Your task to perform on an android device: change timer sound Image 0: 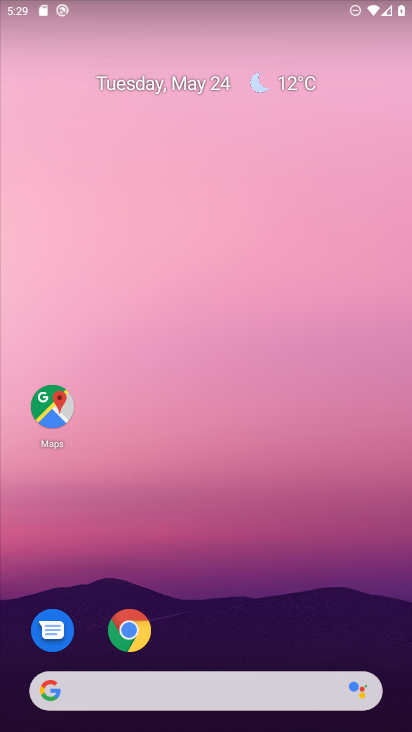
Step 0: drag from (194, 644) to (189, 22)
Your task to perform on an android device: change timer sound Image 1: 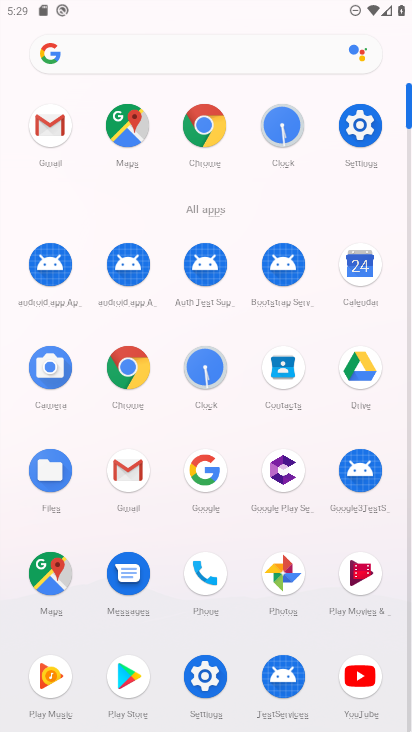
Step 1: click (237, 610)
Your task to perform on an android device: change timer sound Image 2: 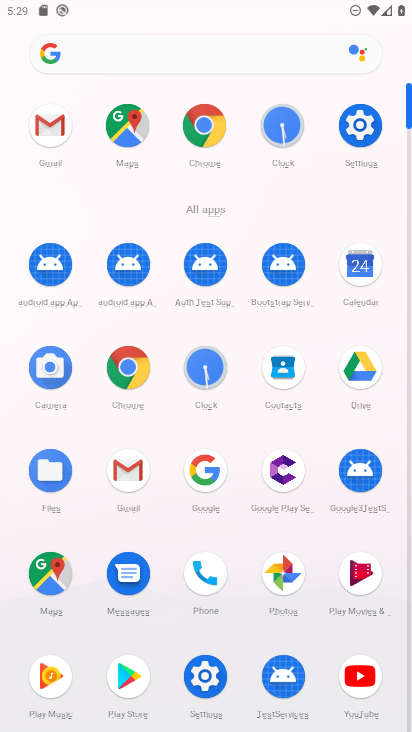
Step 2: click (206, 374)
Your task to perform on an android device: change timer sound Image 3: 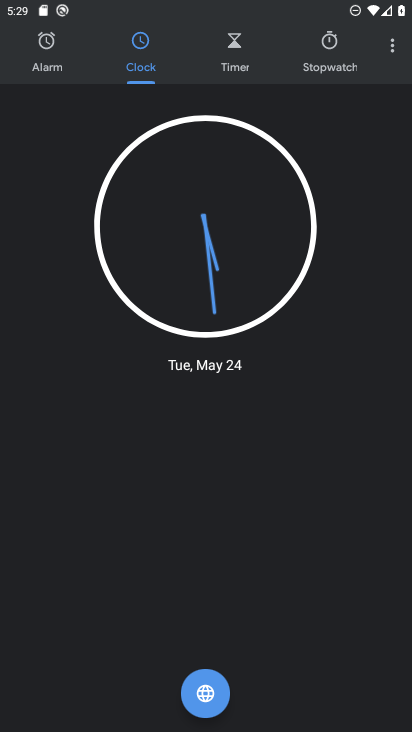
Step 3: click (392, 52)
Your task to perform on an android device: change timer sound Image 4: 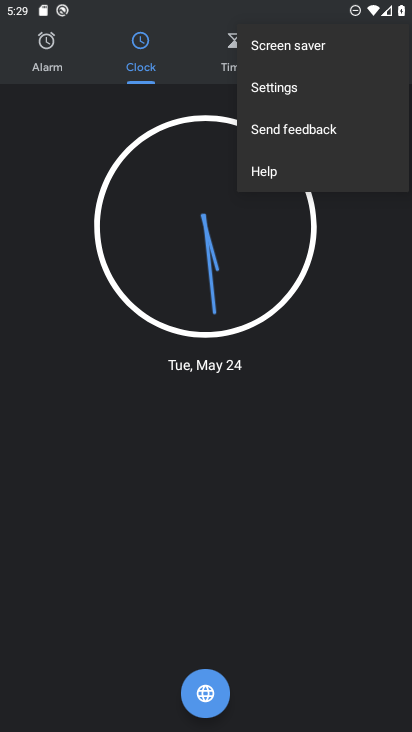
Step 4: click (299, 74)
Your task to perform on an android device: change timer sound Image 5: 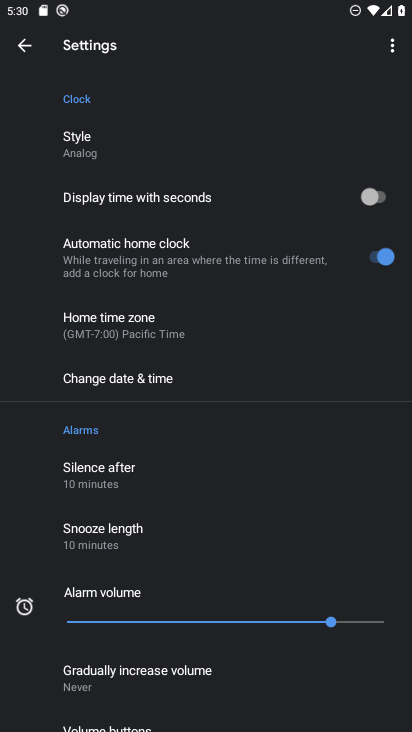
Step 5: drag from (215, 548) to (138, 222)
Your task to perform on an android device: change timer sound Image 6: 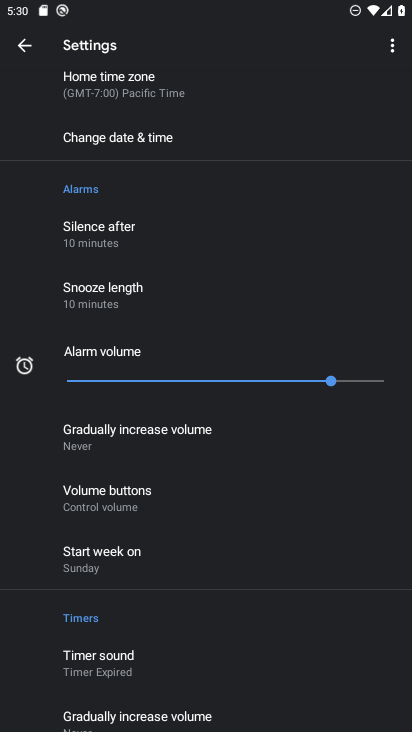
Step 6: click (136, 678)
Your task to perform on an android device: change timer sound Image 7: 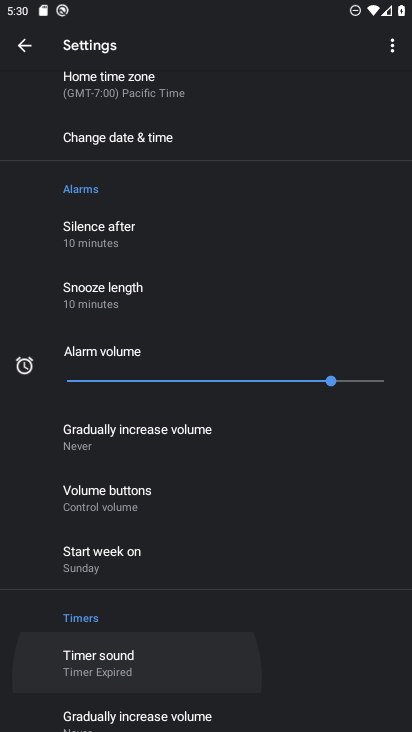
Step 7: click (136, 678)
Your task to perform on an android device: change timer sound Image 8: 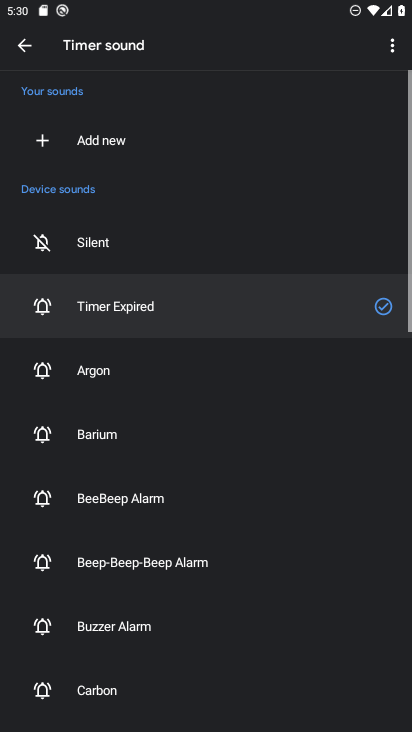
Step 8: click (94, 512)
Your task to perform on an android device: change timer sound Image 9: 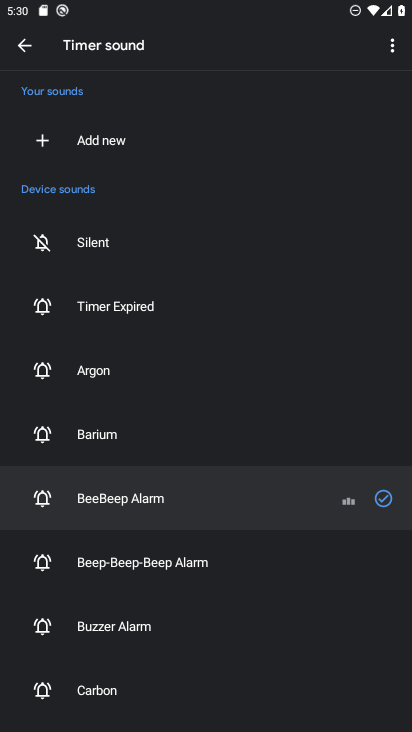
Step 9: task complete